Your task to perform on an android device: stop showing notifications on the lock screen Image 0: 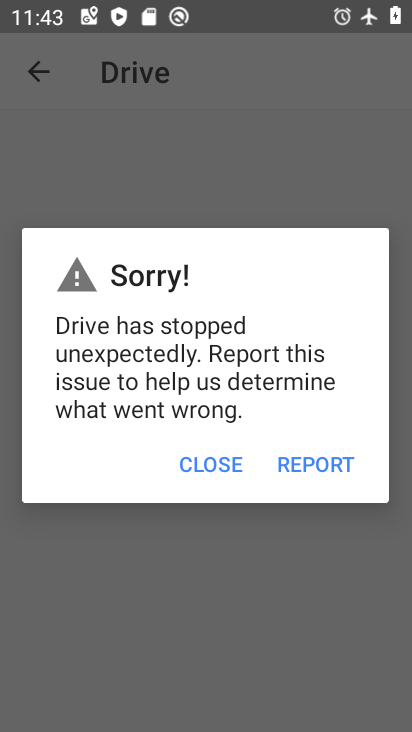
Step 0: press home button
Your task to perform on an android device: stop showing notifications on the lock screen Image 1: 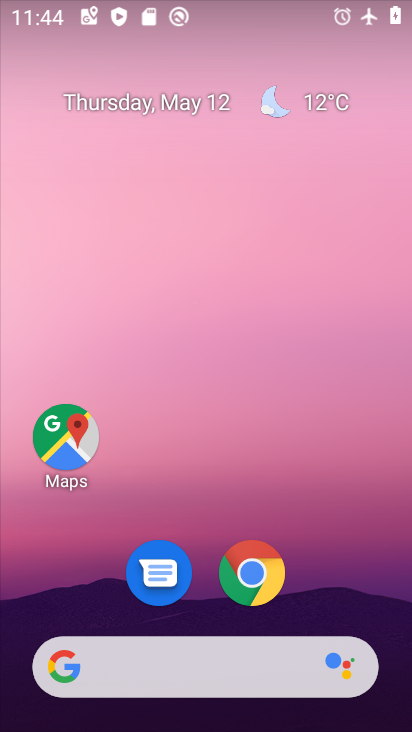
Step 1: drag from (250, 730) to (149, 0)
Your task to perform on an android device: stop showing notifications on the lock screen Image 2: 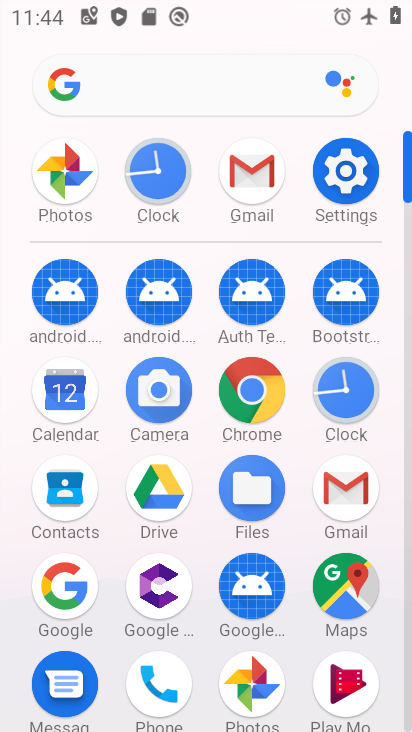
Step 2: click (360, 167)
Your task to perform on an android device: stop showing notifications on the lock screen Image 3: 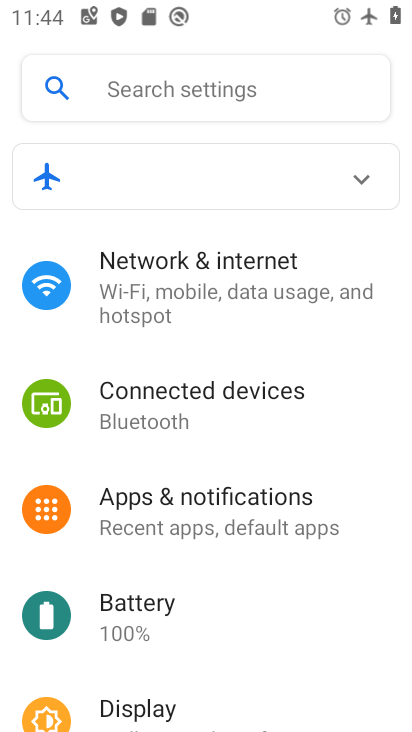
Step 3: click (270, 520)
Your task to perform on an android device: stop showing notifications on the lock screen Image 4: 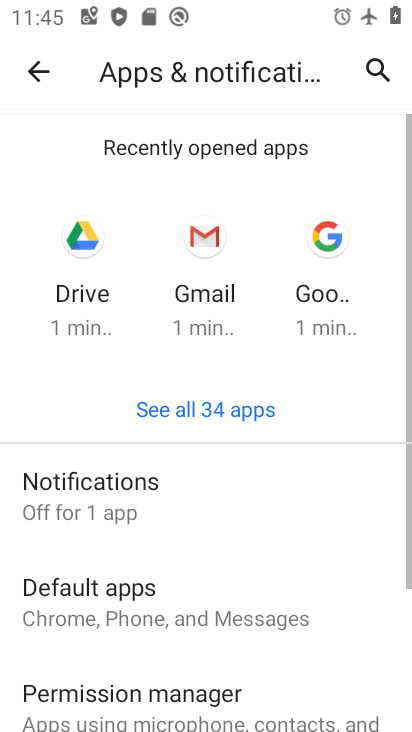
Step 4: click (194, 480)
Your task to perform on an android device: stop showing notifications on the lock screen Image 5: 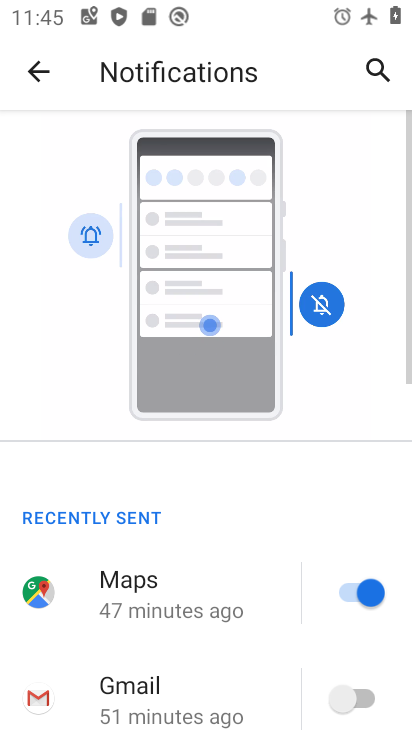
Step 5: drag from (263, 655) to (191, 129)
Your task to perform on an android device: stop showing notifications on the lock screen Image 6: 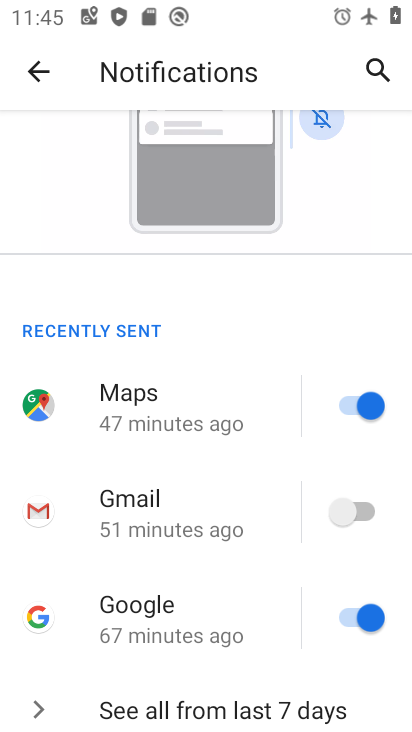
Step 6: drag from (202, 559) to (228, 42)
Your task to perform on an android device: stop showing notifications on the lock screen Image 7: 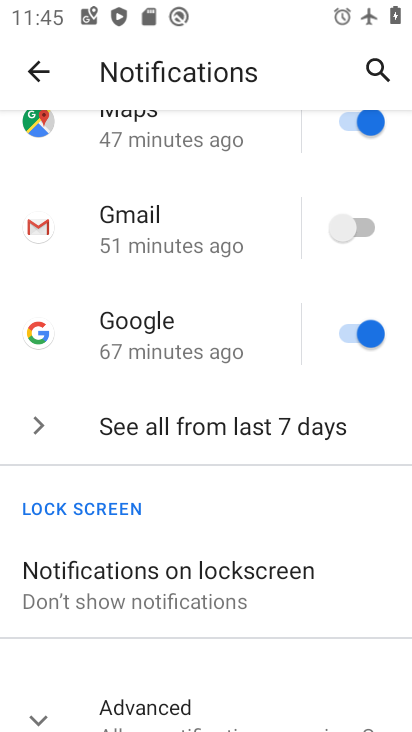
Step 7: click (218, 598)
Your task to perform on an android device: stop showing notifications on the lock screen Image 8: 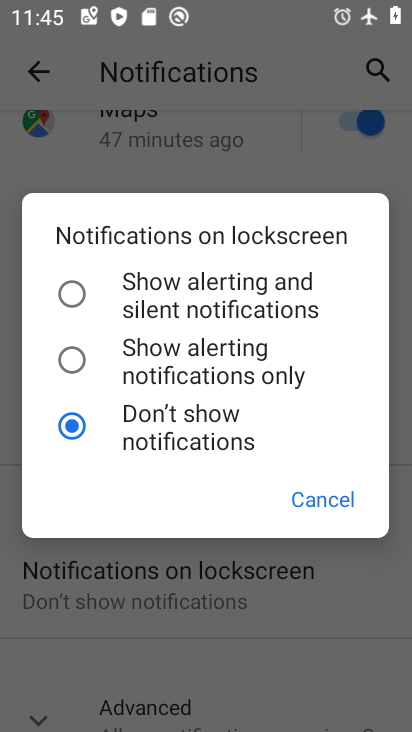
Step 8: task complete